Your task to perform on an android device: Go to wifi settings Image 0: 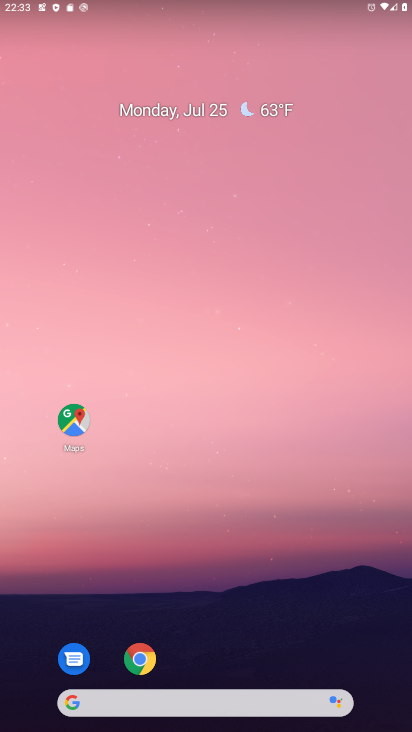
Step 0: drag from (213, 729) to (216, 1)
Your task to perform on an android device: Go to wifi settings Image 1: 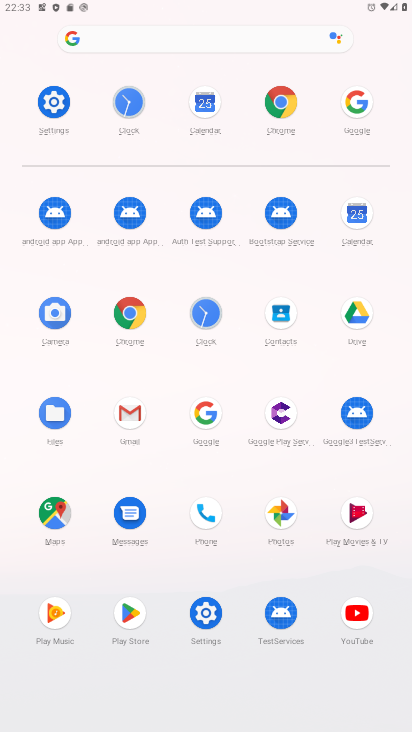
Step 1: click (47, 99)
Your task to perform on an android device: Go to wifi settings Image 2: 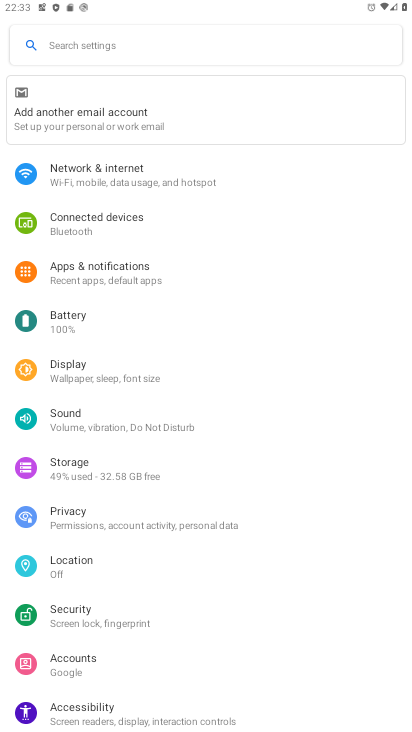
Step 2: click (102, 165)
Your task to perform on an android device: Go to wifi settings Image 3: 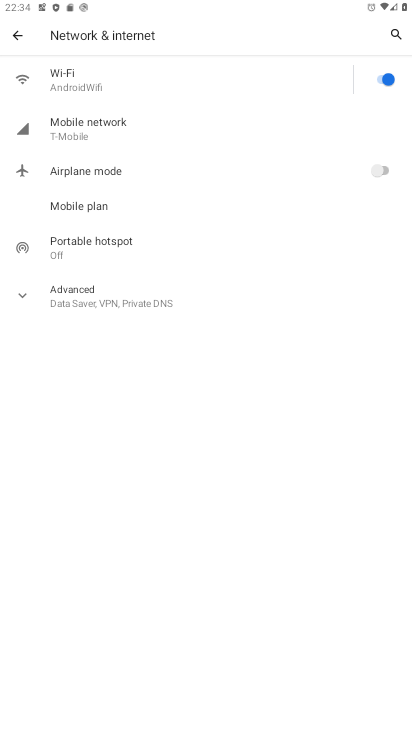
Step 3: click (65, 83)
Your task to perform on an android device: Go to wifi settings Image 4: 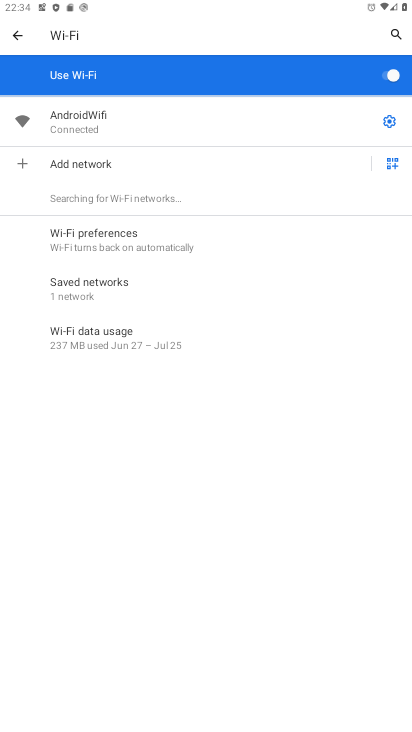
Step 4: task complete